Your task to perform on an android device: open a bookmark in the chrome app Image 0: 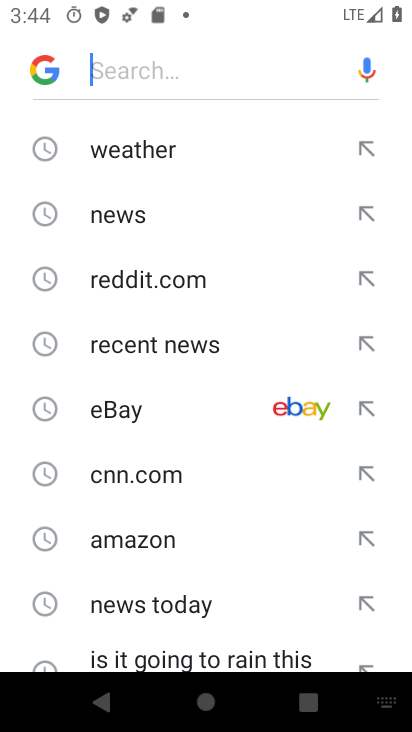
Step 0: press home button
Your task to perform on an android device: open a bookmark in the chrome app Image 1: 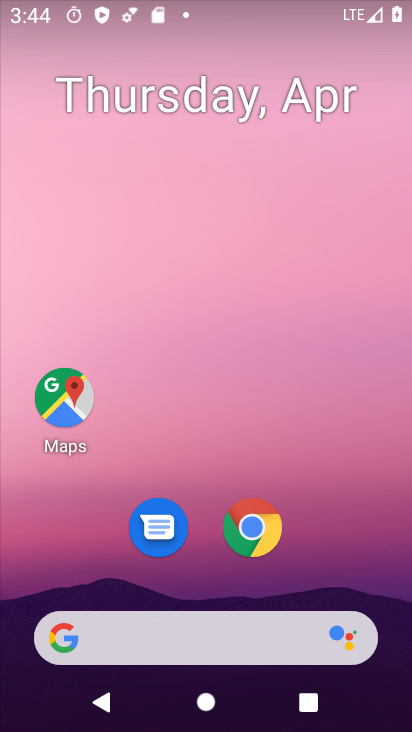
Step 1: click (258, 525)
Your task to perform on an android device: open a bookmark in the chrome app Image 2: 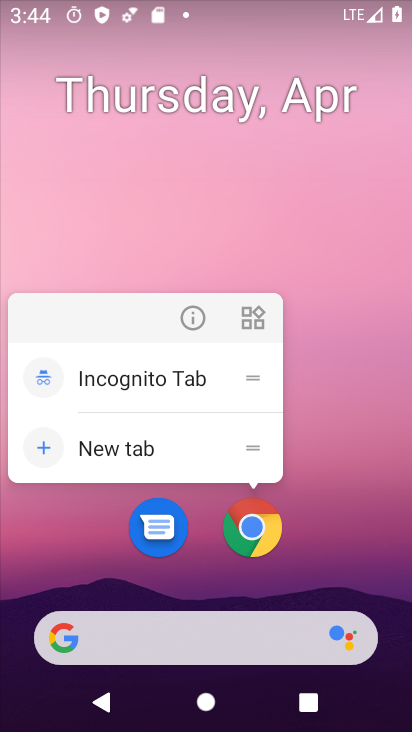
Step 2: click (251, 524)
Your task to perform on an android device: open a bookmark in the chrome app Image 3: 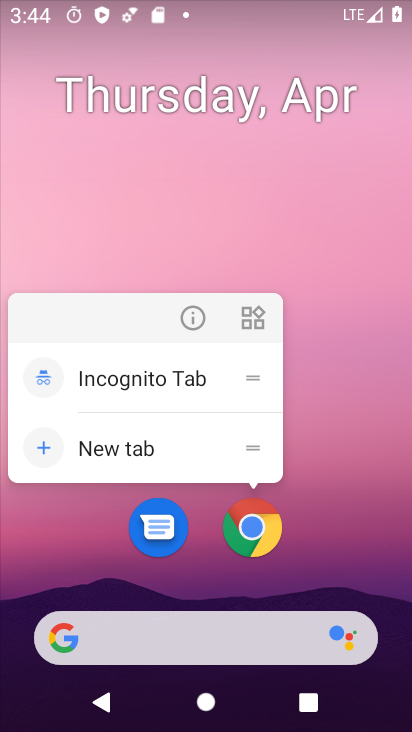
Step 3: click (251, 524)
Your task to perform on an android device: open a bookmark in the chrome app Image 4: 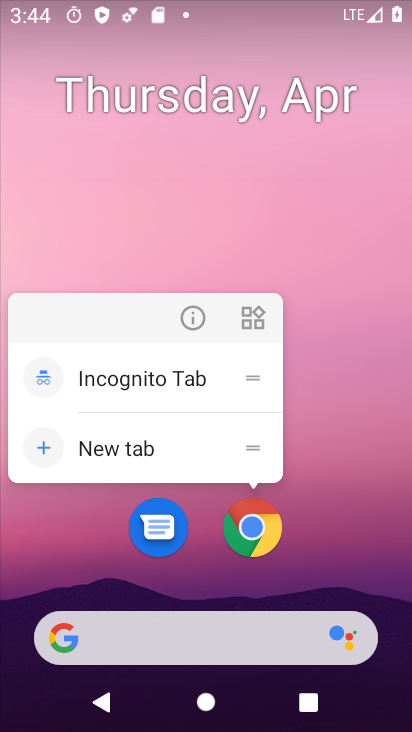
Step 4: drag from (330, 528) to (342, 68)
Your task to perform on an android device: open a bookmark in the chrome app Image 5: 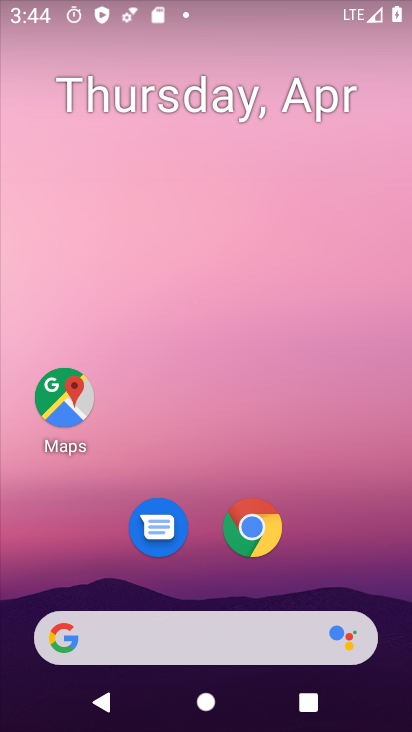
Step 5: drag from (324, 471) to (333, 194)
Your task to perform on an android device: open a bookmark in the chrome app Image 6: 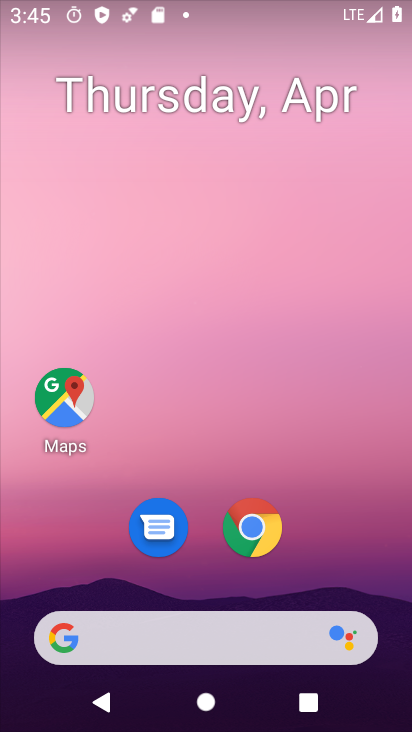
Step 6: drag from (342, 559) to (328, 130)
Your task to perform on an android device: open a bookmark in the chrome app Image 7: 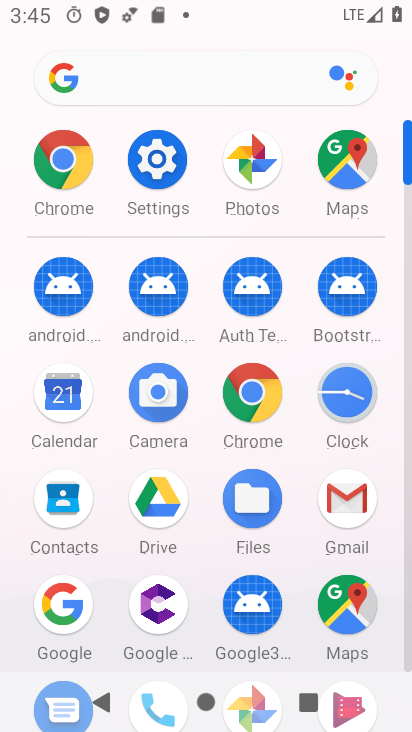
Step 7: click (249, 406)
Your task to perform on an android device: open a bookmark in the chrome app Image 8: 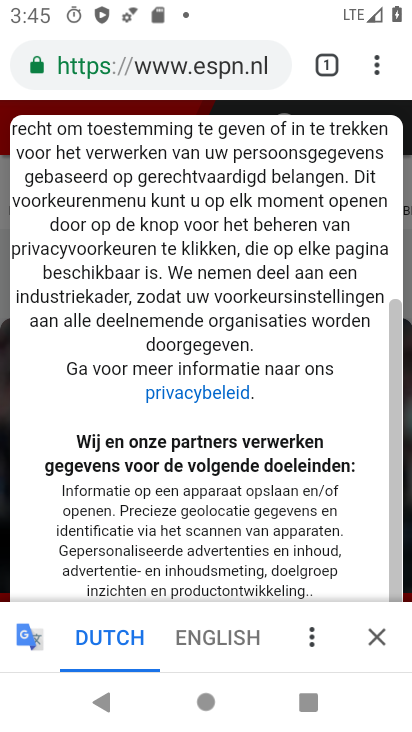
Step 8: click (383, 54)
Your task to perform on an android device: open a bookmark in the chrome app Image 9: 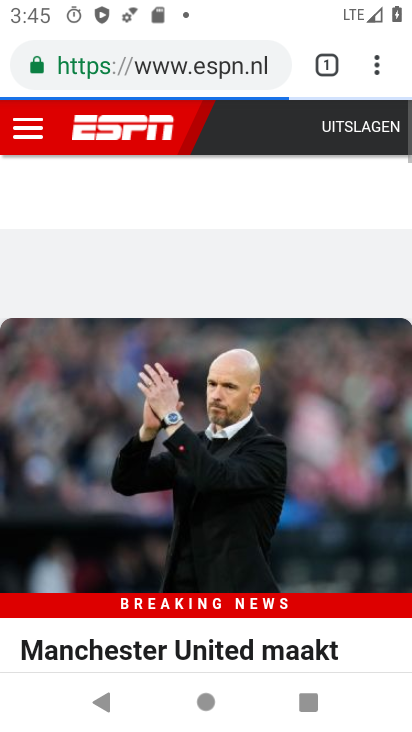
Step 9: task complete